Your task to perform on an android device: set the stopwatch Image 0: 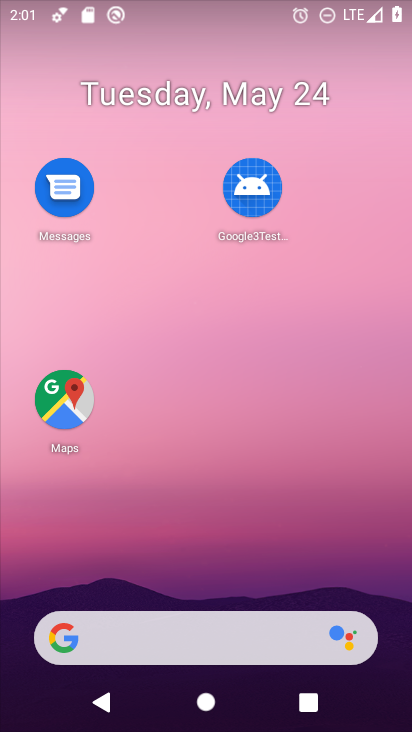
Step 0: drag from (214, 534) to (175, 251)
Your task to perform on an android device: set the stopwatch Image 1: 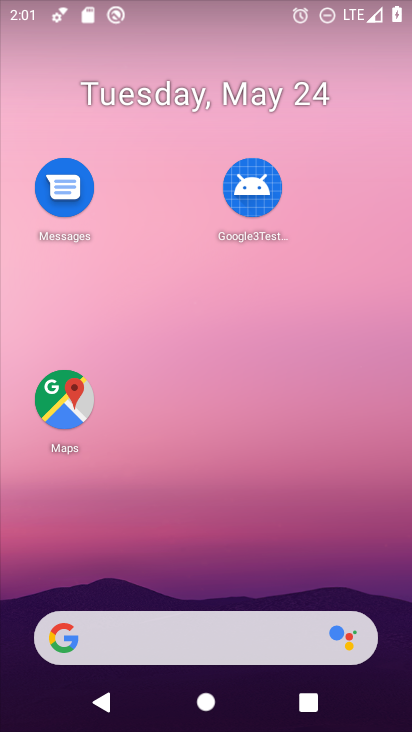
Step 1: drag from (212, 562) to (219, 3)
Your task to perform on an android device: set the stopwatch Image 2: 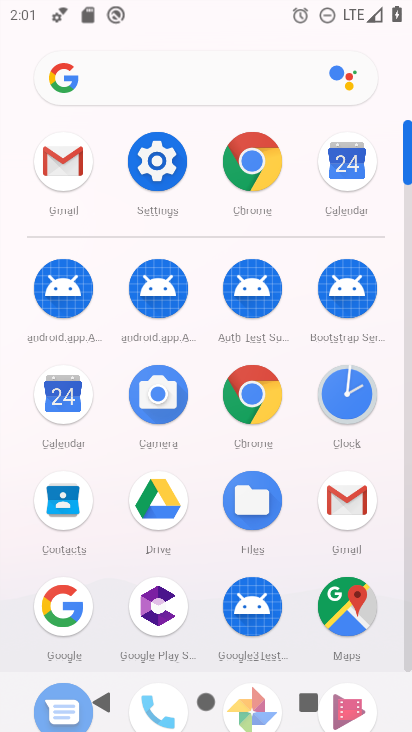
Step 2: click (160, 168)
Your task to perform on an android device: set the stopwatch Image 3: 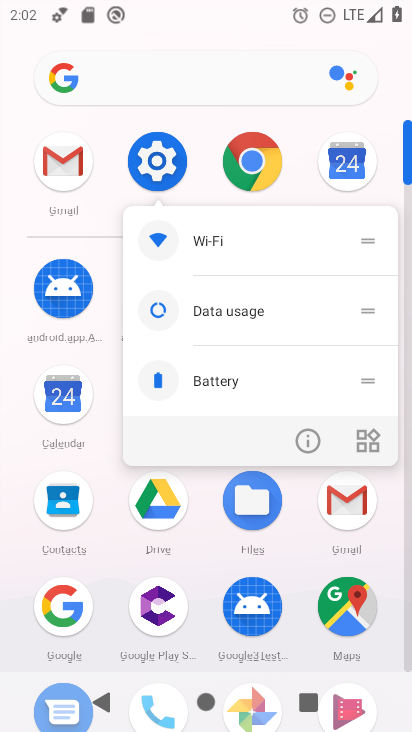
Step 3: click (147, 167)
Your task to perform on an android device: set the stopwatch Image 4: 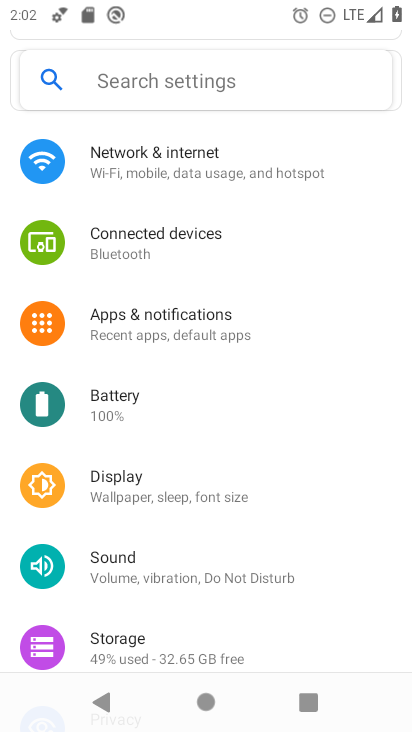
Step 4: press back button
Your task to perform on an android device: set the stopwatch Image 5: 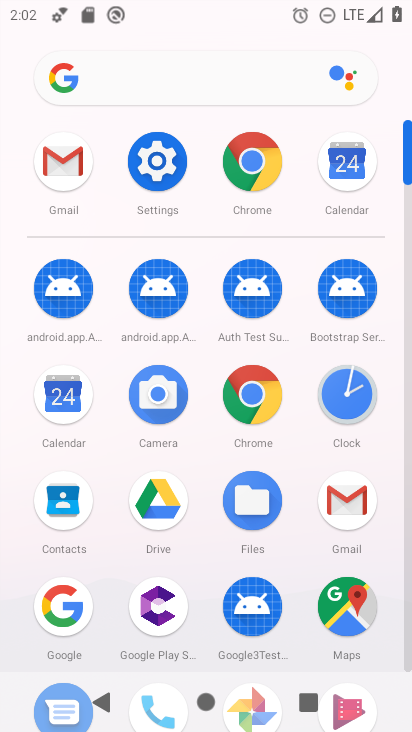
Step 5: click (350, 404)
Your task to perform on an android device: set the stopwatch Image 6: 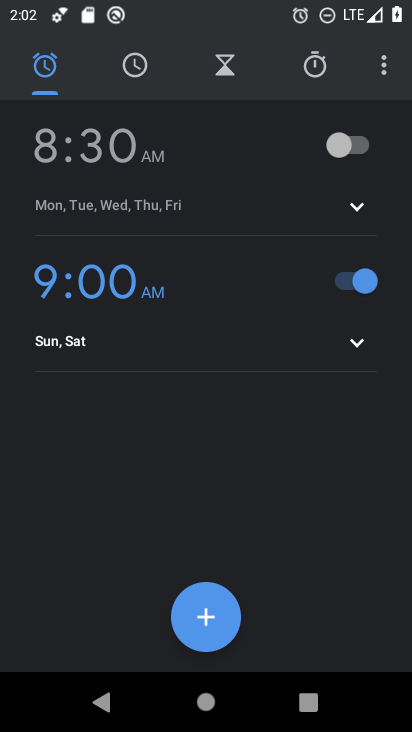
Step 6: click (329, 85)
Your task to perform on an android device: set the stopwatch Image 7: 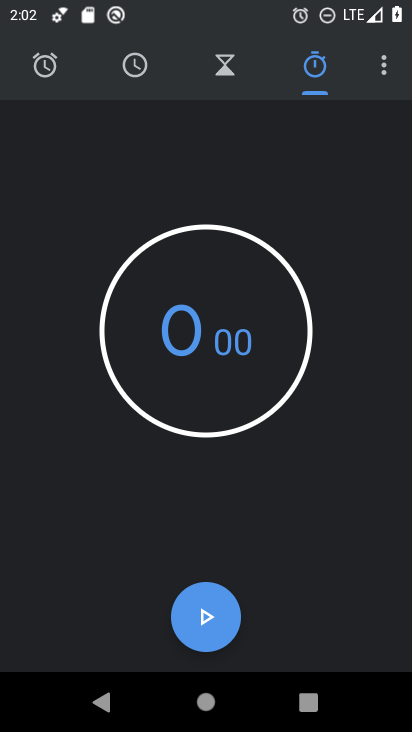
Step 7: click (211, 638)
Your task to perform on an android device: set the stopwatch Image 8: 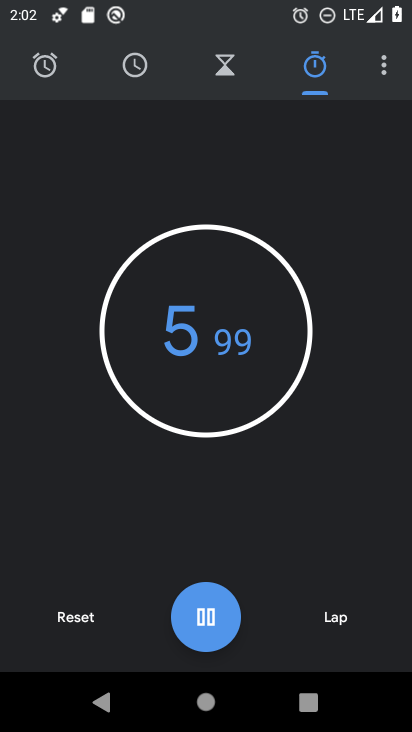
Step 8: click (199, 627)
Your task to perform on an android device: set the stopwatch Image 9: 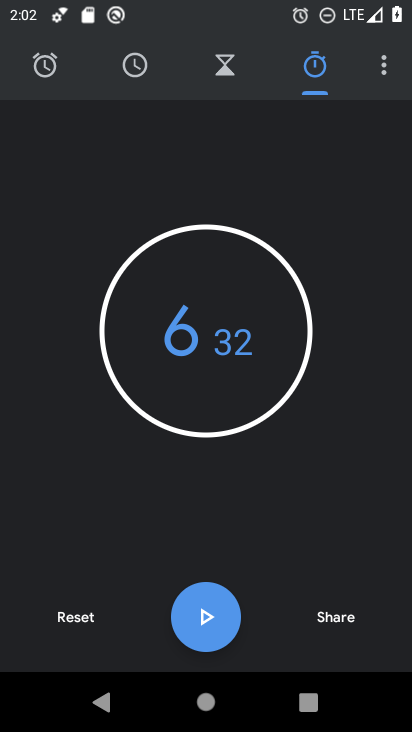
Step 9: task complete